Your task to perform on an android device: Open battery settings Image 0: 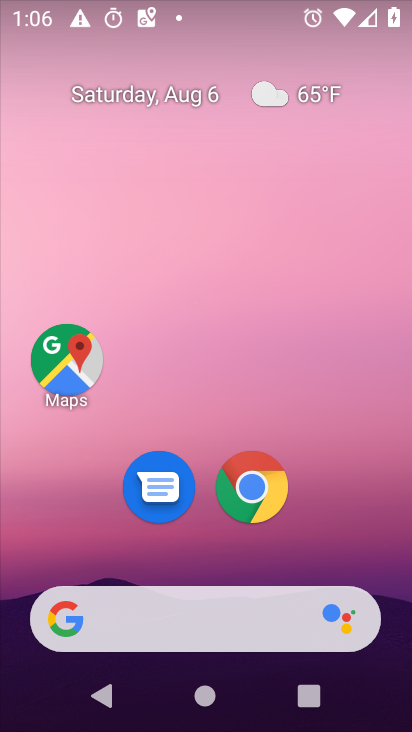
Step 0: drag from (186, 587) to (279, 43)
Your task to perform on an android device: Open battery settings Image 1: 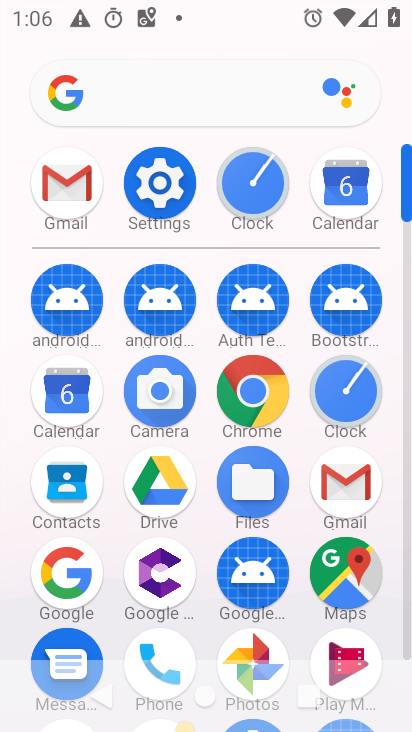
Step 1: click (166, 179)
Your task to perform on an android device: Open battery settings Image 2: 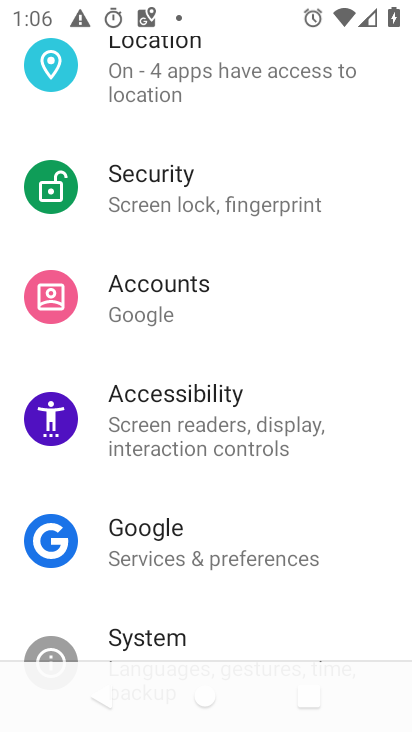
Step 2: drag from (225, 219) to (204, 672)
Your task to perform on an android device: Open battery settings Image 3: 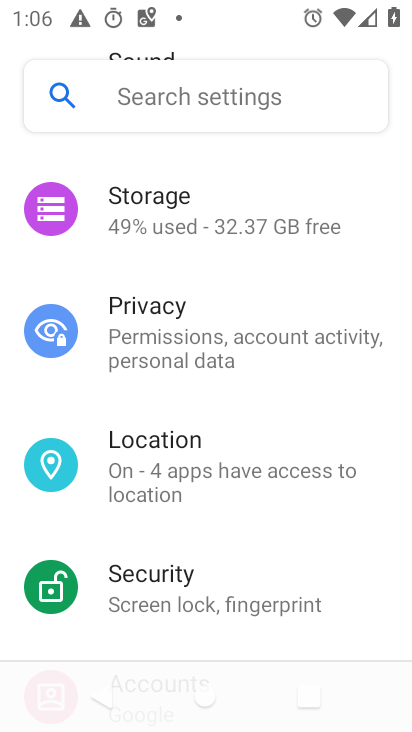
Step 3: drag from (257, 153) to (166, 658)
Your task to perform on an android device: Open battery settings Image 4: 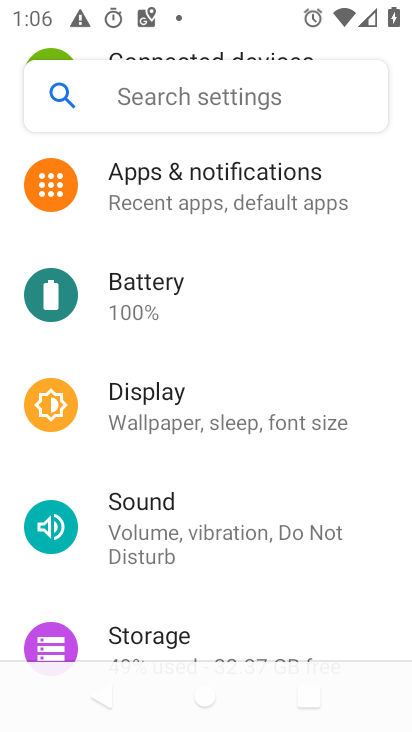
Step 4: click (151, 287)
Your task to perform on an android device: Open battery settings Image 5: 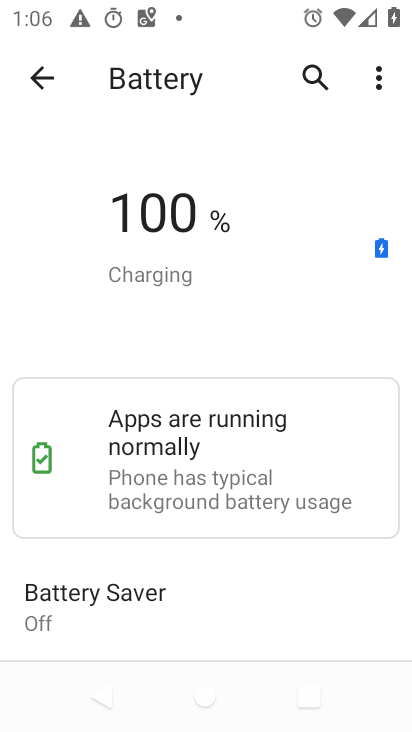
Step 5: task complete